Your task to perform on an android device: show emergency info Image 0: 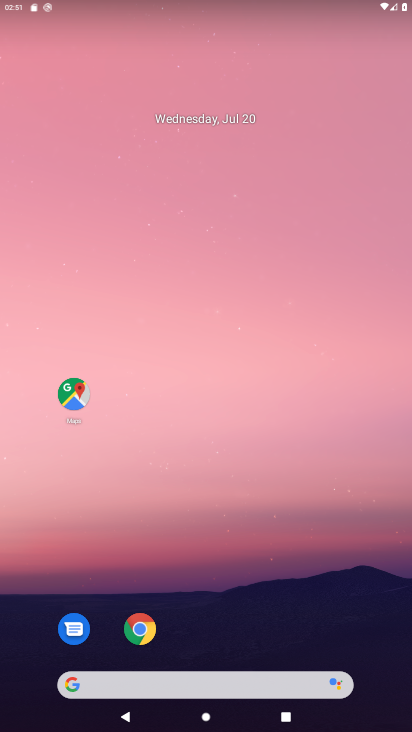
Step 0: drag from (218, 667) to (262, 199)
Your task to perform on an android device: show emergency info Image 1: 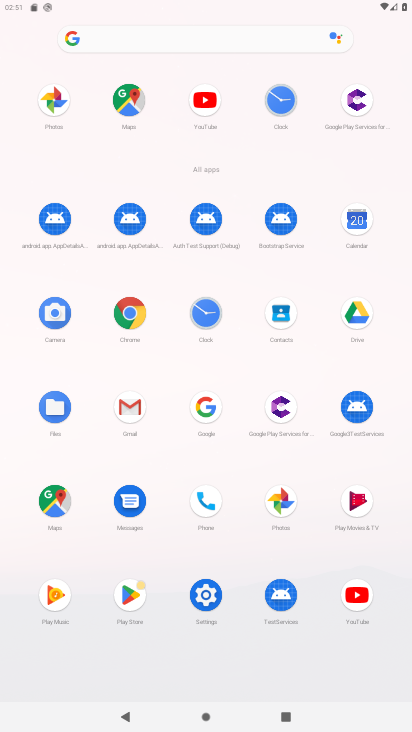
Step 1: click (203, 608)
Your task to perform on an android device: show emergency info Image 2: 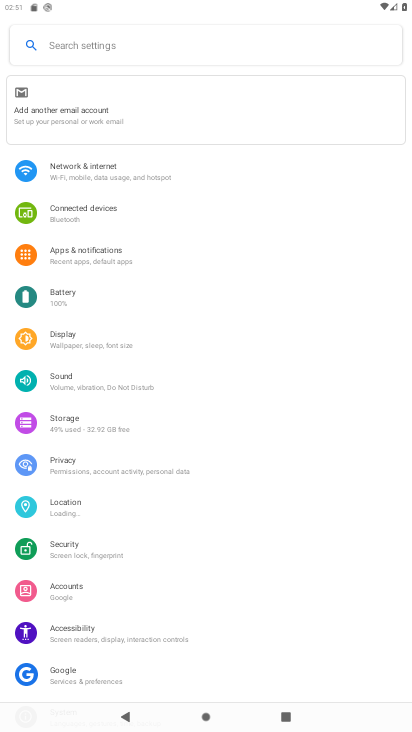
Step 2: drag from (156, 547) to (242, 304)
Your task to perform on an android device: show emergency info Image 3: 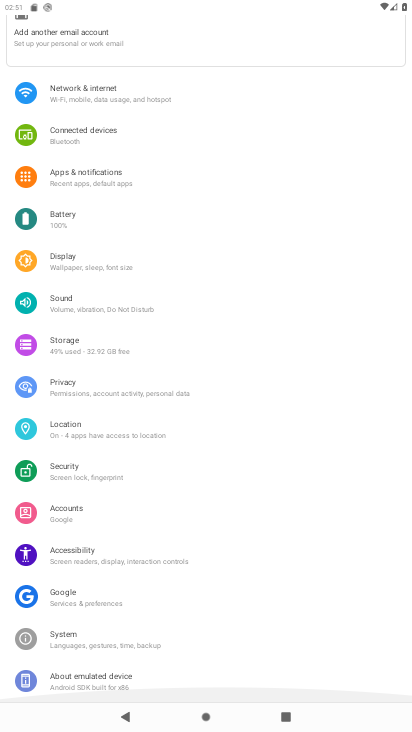
Step 3: click (126, 679)
Your task to perform on an android device: show emergency info Image 4: 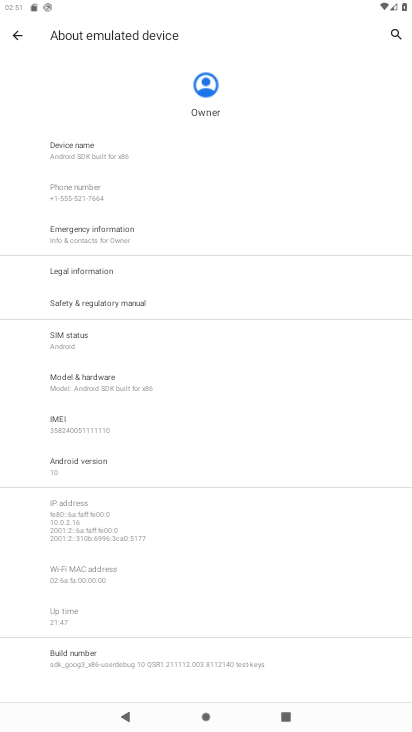
Step 4: click (132, 237)
Your task to perform on an android device: show emergency info Image 5: 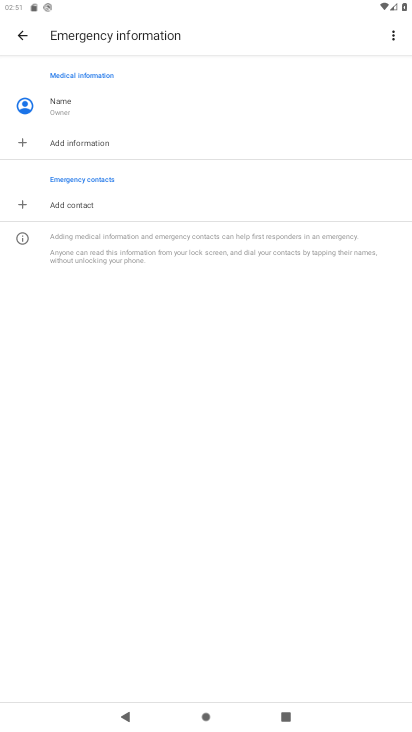
Step 5: task complete